Your task to perform on an android device: Open my contact list Image 0: 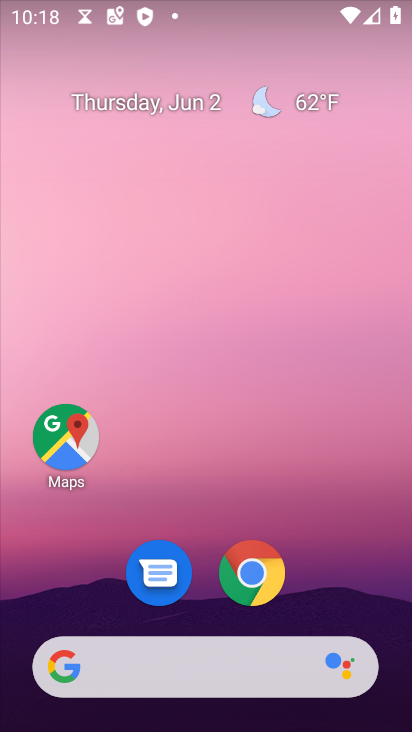
Step 0: drag from (344, 585) to (248, 198)
Your task to perform on an android device: Open my contact list Image 1: 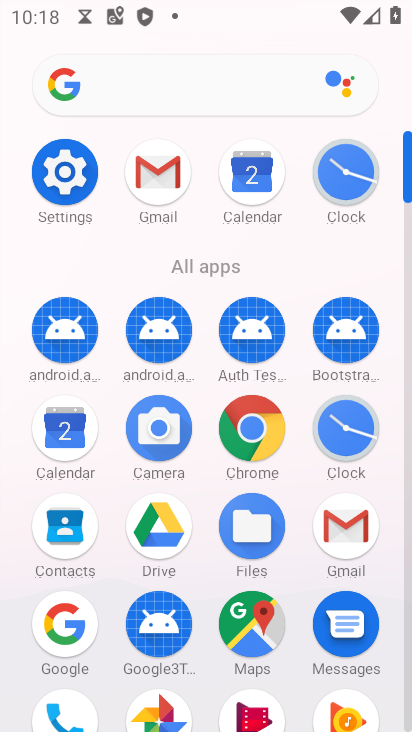
Step 1: click (66, 528)
Your task to perform on an android device: Open my contact list Image 2: 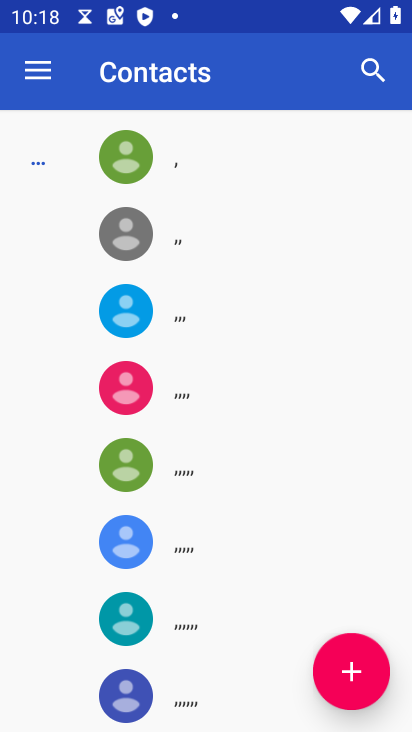
Step 2: task complete